Your task to perform on an android device: Open sound settings Image 0: 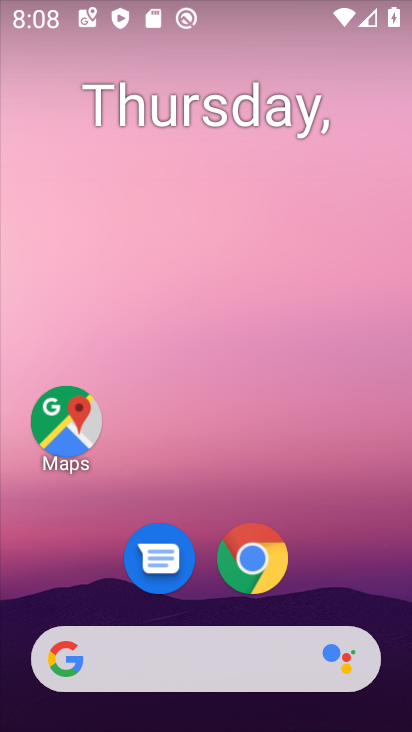
Step 0: drag from (232, 621) to (251, 8)
Your task to perform on an android device: Open sound settings Image 1: 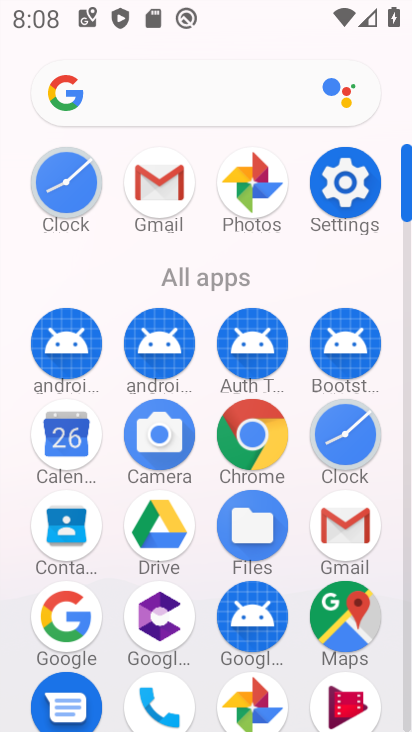
Step 1: click (345, 179)
Your task to perform on an android device: Open sound settings Image 2: 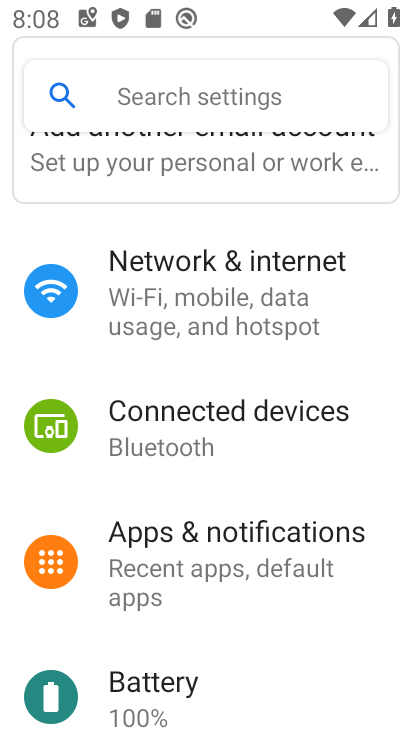
Step 2: drag from (208, 649) to (272, 158)
Your task to perform on an android device: Open sound settings Image 3: 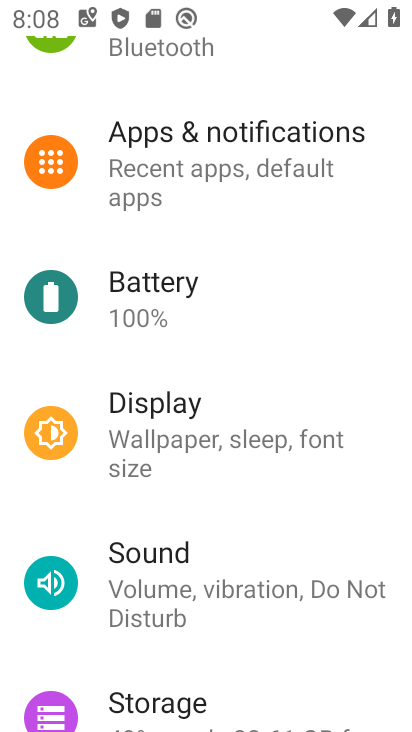
Step 3: click (221, 583)
Your task to perform on an android device: Open sound settings Image 4: 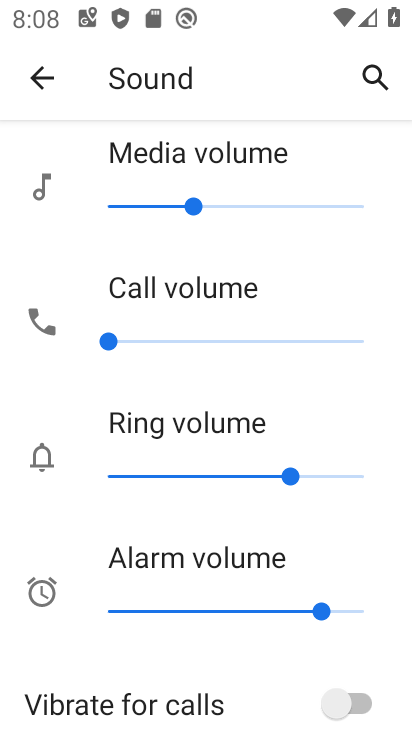
Step 4: task complete